Your task to perform on an android device: Open accessibility settings Image 0: 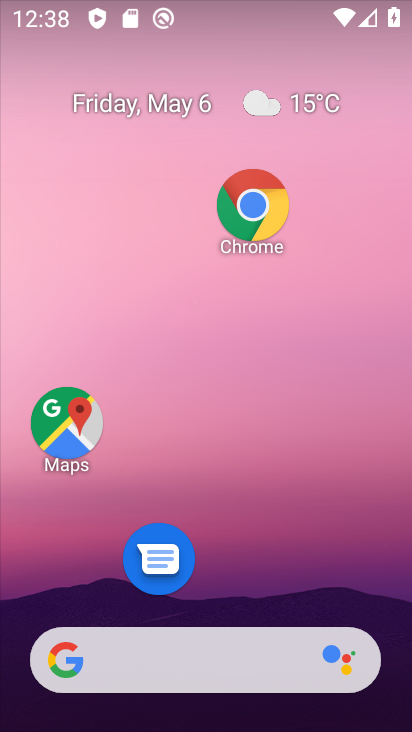
Step 0: drag from (222, 604) to (158, 159)
Your task to perform on an android device: Open accessibility settings Image 1: 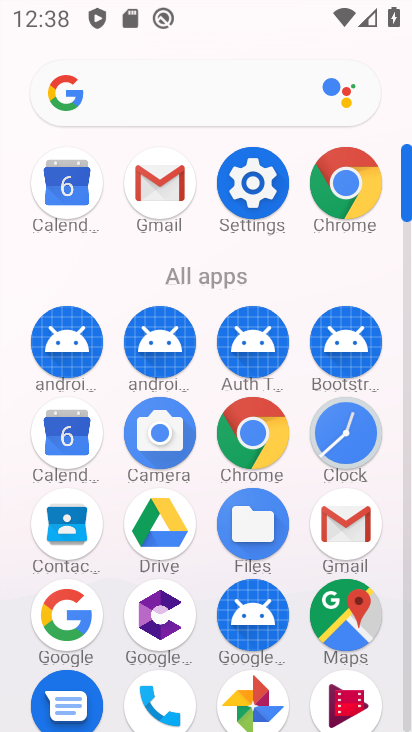
Step 1: click (256, 206)
Your task to perform on an android device: Open accessibility settings Image 2: 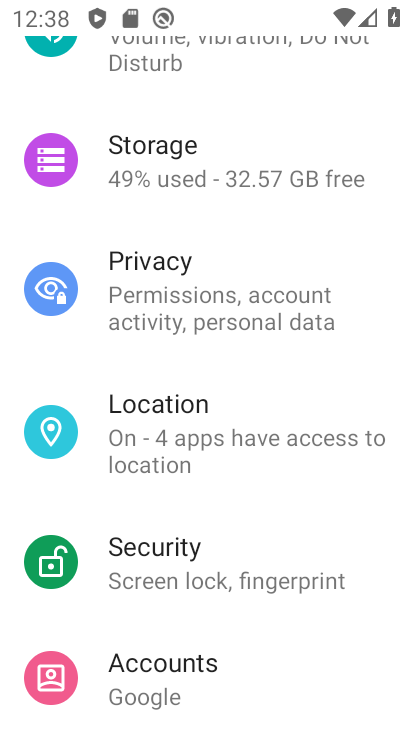
Step 2: drag from (297, 592) to (246, 160)
Your task to perform on an android device: Open accessibility settings Image 3: 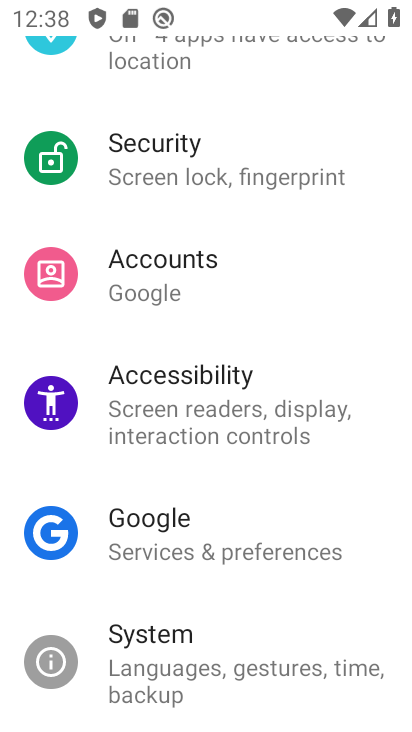
Step 3: click (151, 395)
Your task to perform on an android device: Open accessibility settings Image 4: 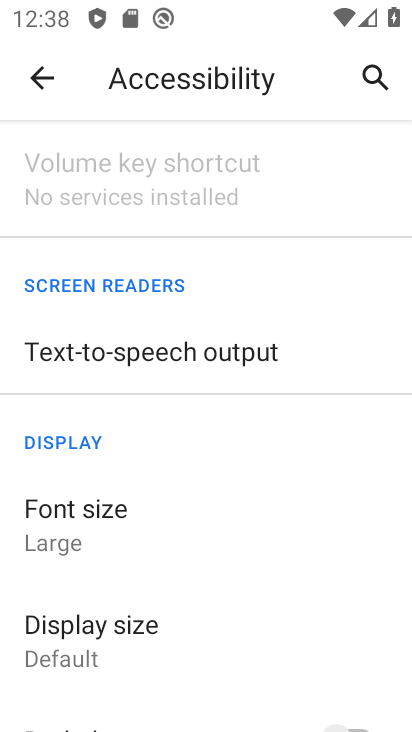
Step 4: task complete